Your task to perform on an android device: Go to Google maps Image 0: 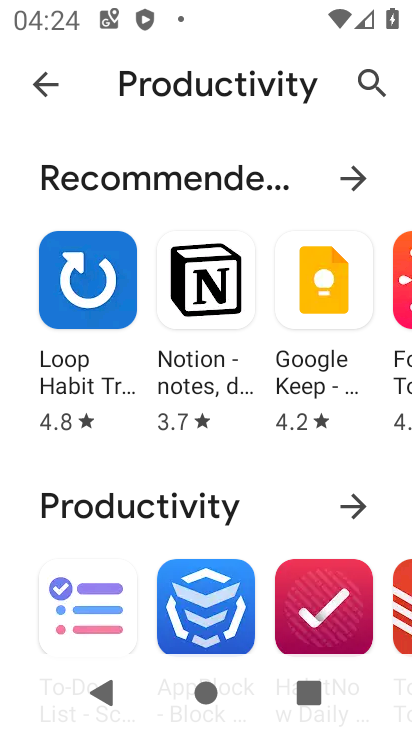
Step 0: press home button
Your task to perform on an android device: Go to Google maps Image 1: 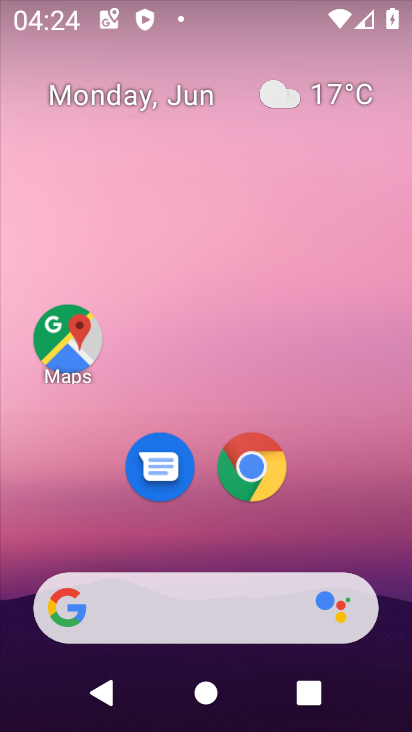
Step 1: click (75, 343)
Your task to perform on an android device: Go to Google maps Image 2: 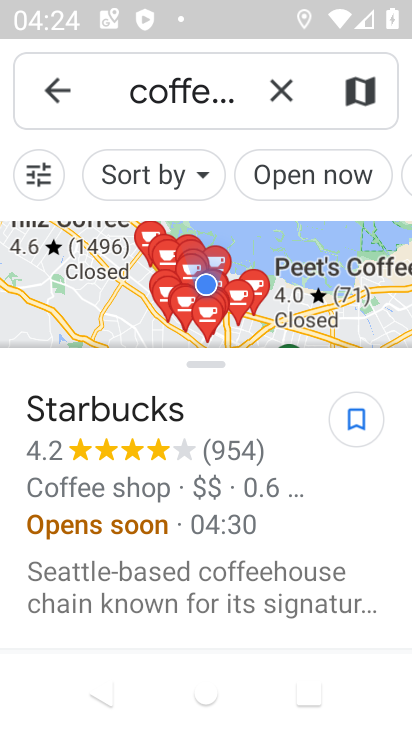
Step 2: click (65, 97)
Your task to perform on an android device: Go to Google maps Image 3: 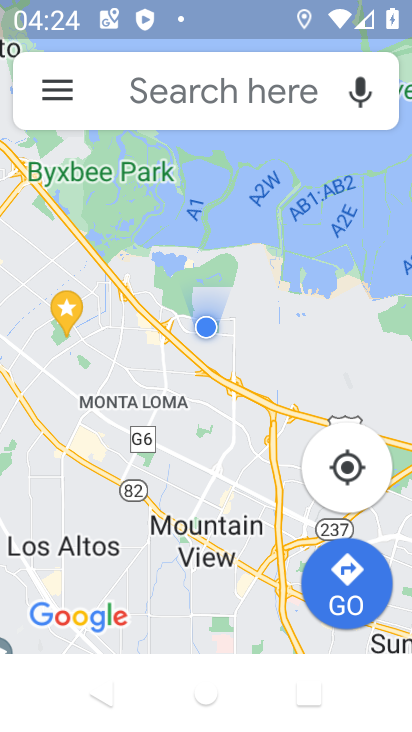
Step 3: task complete